Your task to perform on an android device: turn on data saver in the chrome app Image 0: 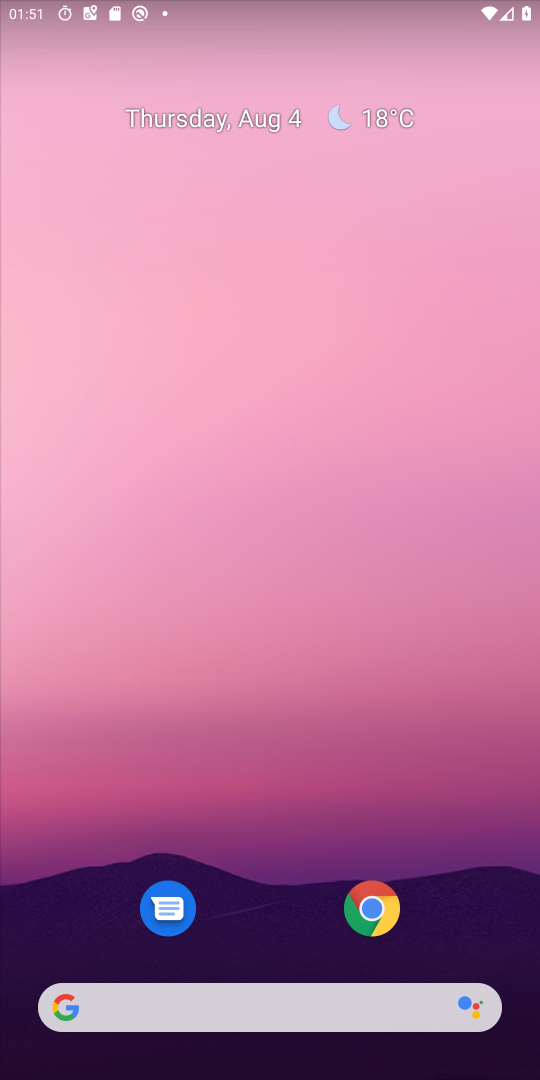
Step 0: press home button
Your task to perform on an android device: turn on data saver in the chrome app Image 1: 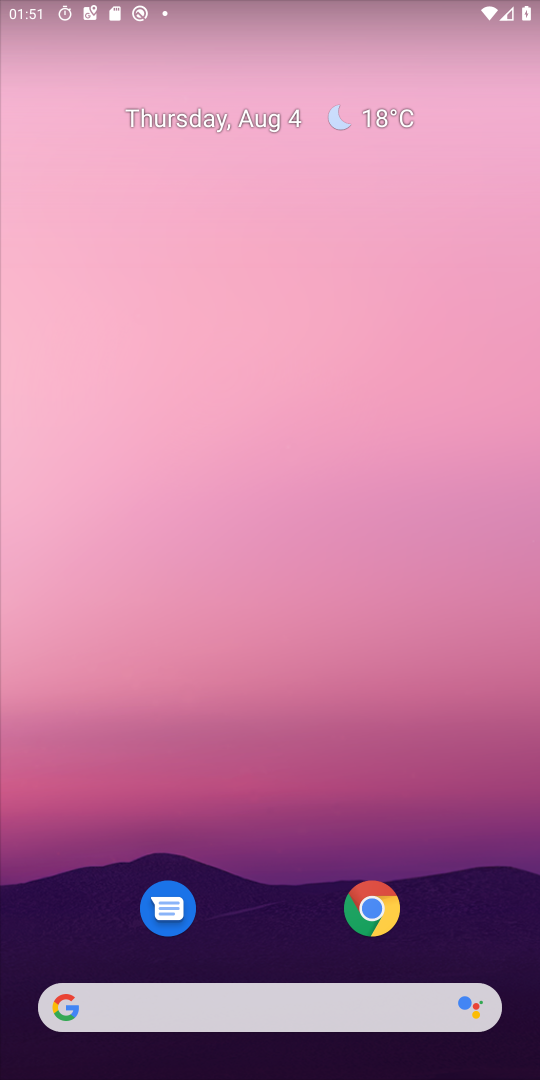
Step 1: drag from (263, 1027) to (265, 234)
Your task to perform on an android device: turn on data saver in the chrome app Image 2: 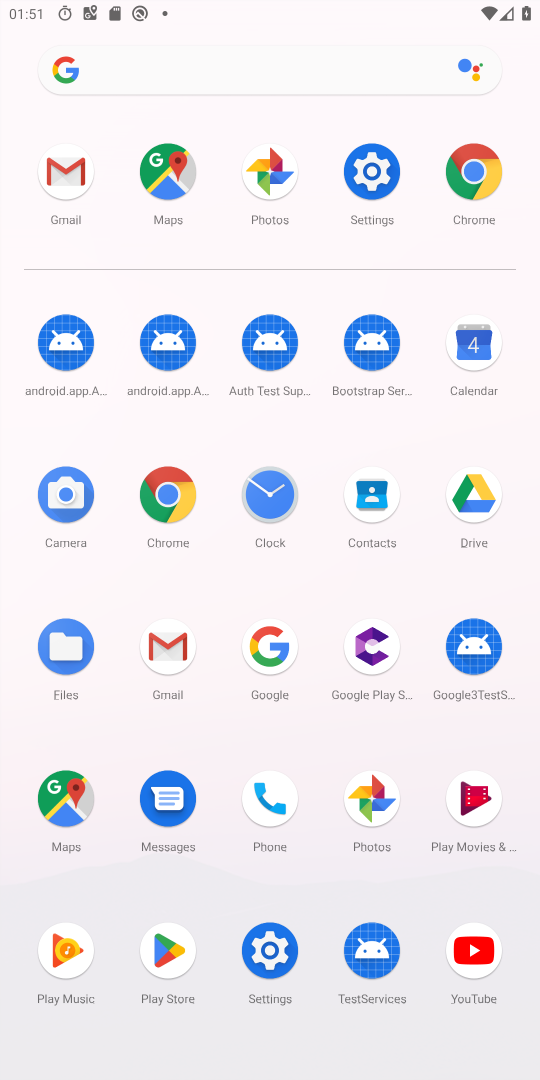
Step 2: click (483, 186)
Your task to perform on an android device: turn on data saver in the chrome app Image 3: 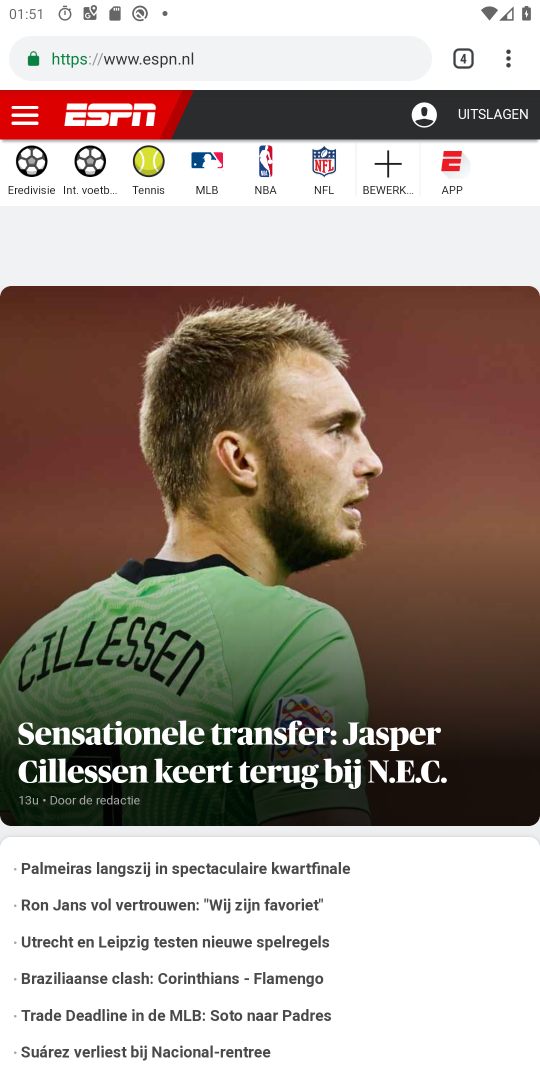
Step 3: click (510, 65)
Your task to perform on an android device: turn on data saver in the chrome app Image 4: 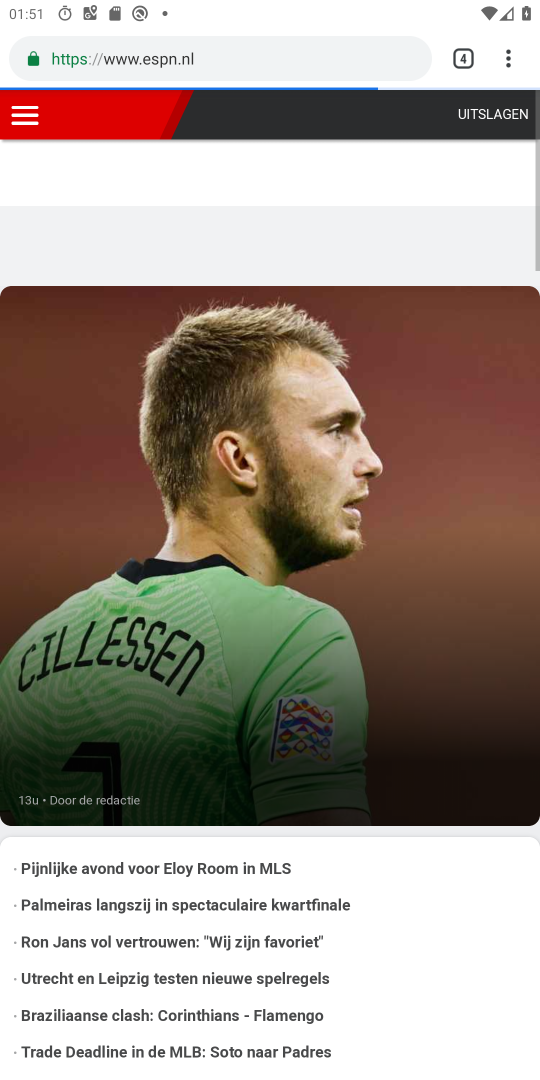
Step 4: click (500, 59)
Your task to perform on an android device: turn on data saver in the chrome app Image 5: 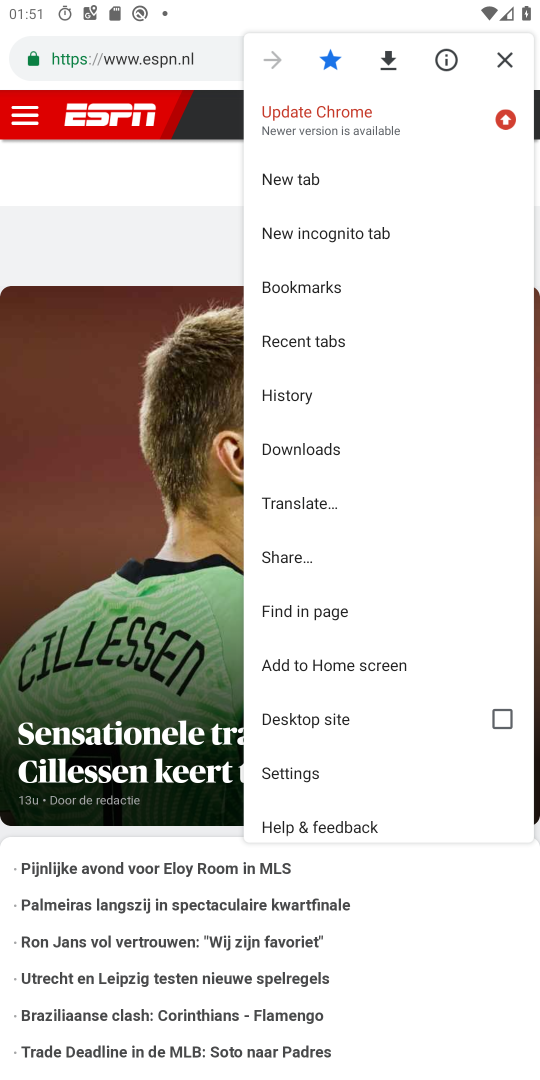
Step 5: click (289, 767)
Your task to perform on an android device: turn on data saver in the chrome app Image 6: 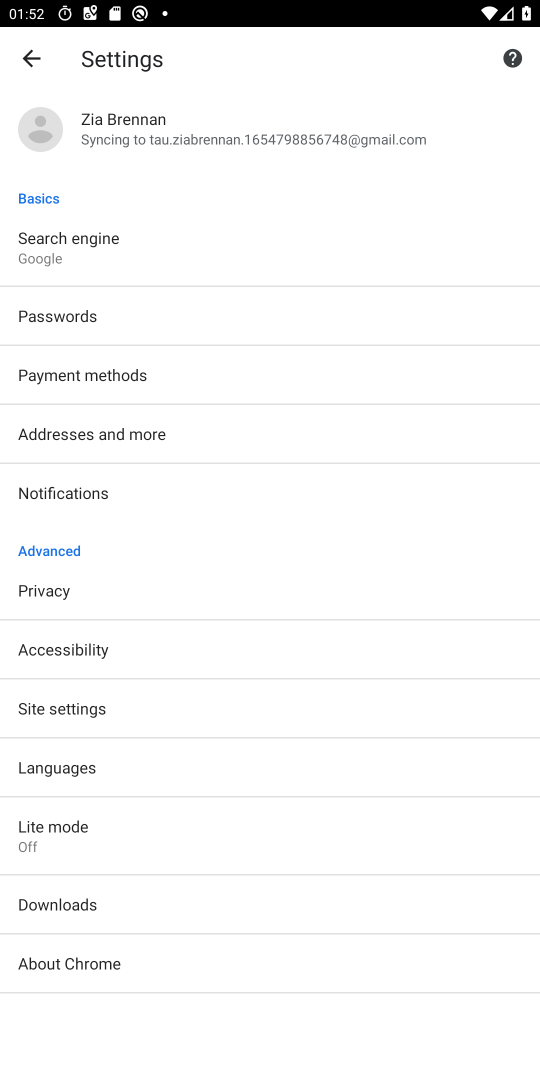
Step 6: click (64, 831)
Your task to perform on an android device: turn on data saver in the chrome app Image 7: 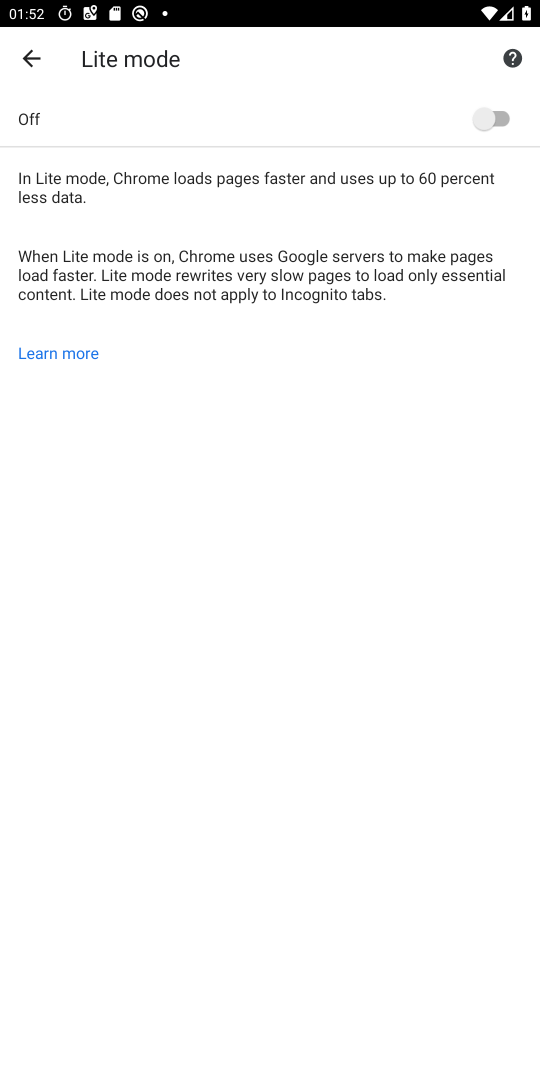
Step 7: click (480, 120)
Your task to perform on an android device: turn on data saver in the chrome app Image 8: 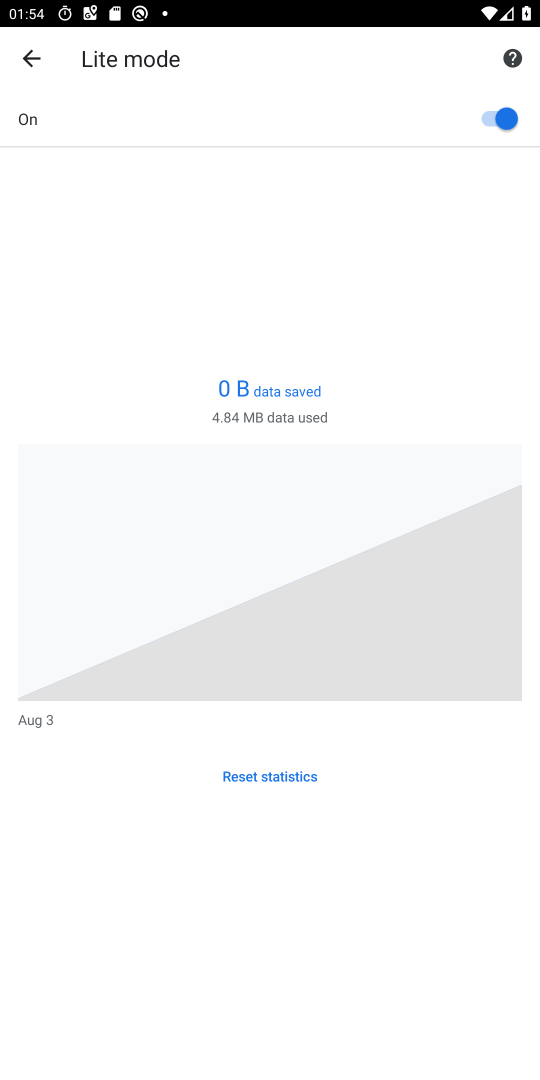
Step 8: task complete